Your task to perform on an android device: Go to battery settings Image 0: 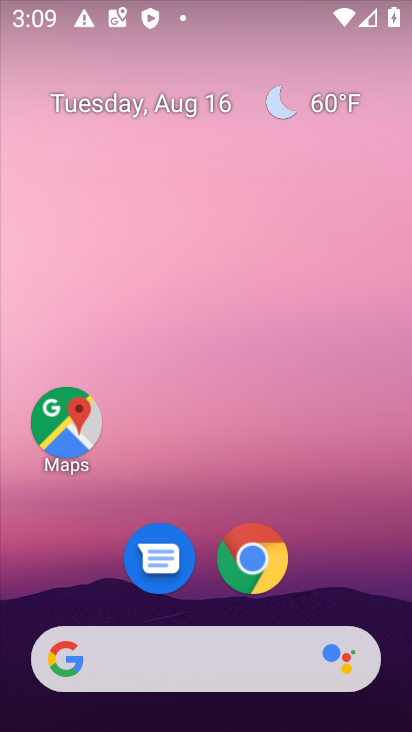
Step 0: drag from (401, 613) to (356, 140)
Your task to perform on an android device: Go to battery settings Image 1: 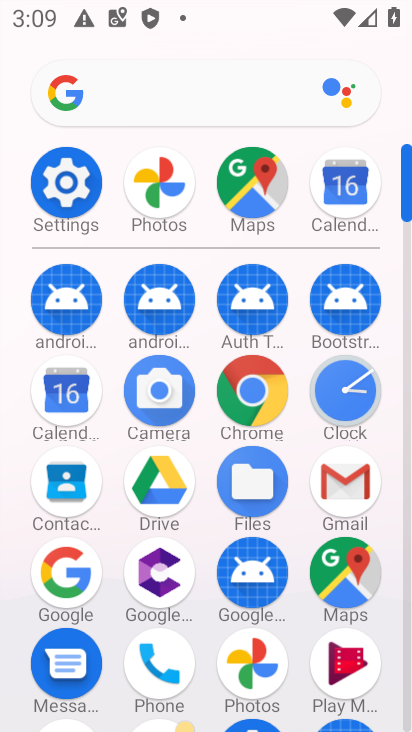
Step 1: click (408, 682)
Your task to perform on an android device: Go to battery settings Image 2: 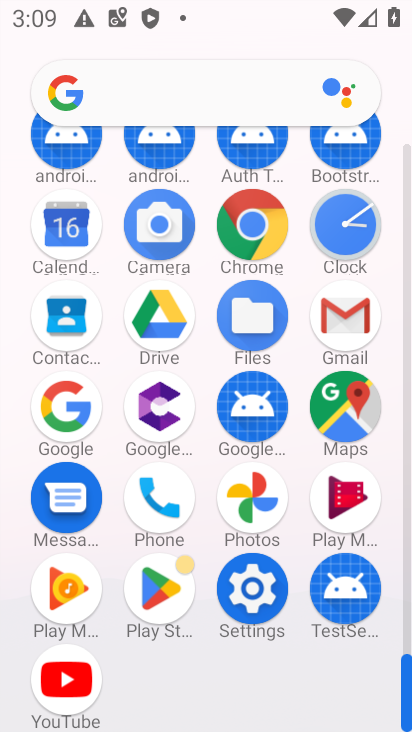
Step 2: click (253, 589)
Your task to perform on an android device: Go to battery settings Image 3: 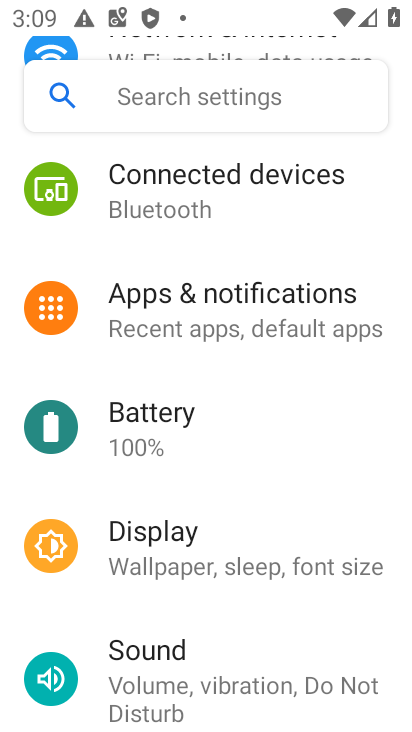
Step 3: click (127, 415)
Your task to perform on an android device: Go to battery settings Image 4: 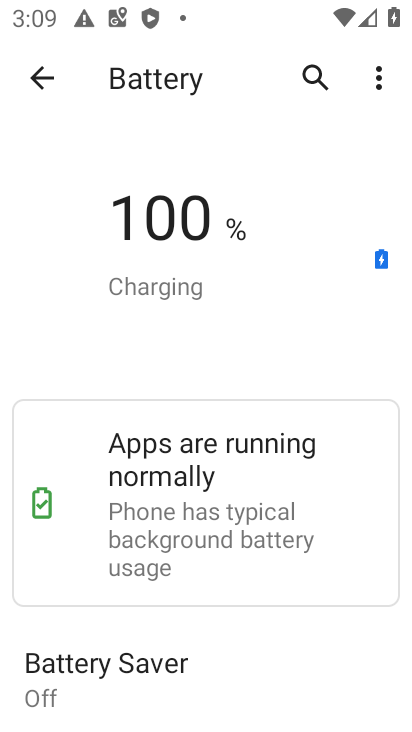
Step 4: task complete